Your task to perform on an android device: change the upload size in google photos Image 0: 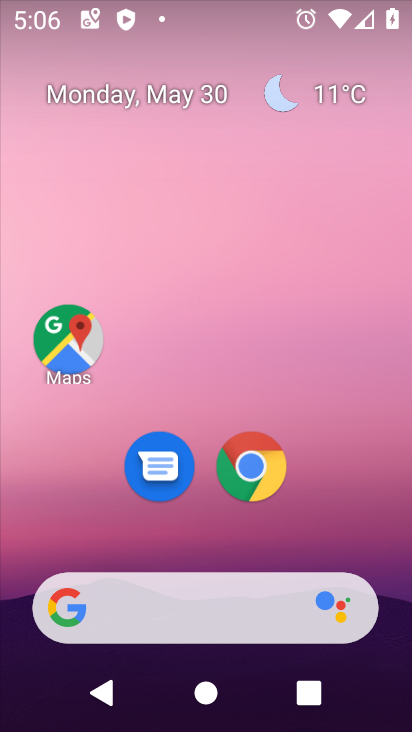
Step 0: drag from (375, 497) to (291, 67)
Your task to perform on an android device: change the upload size in google photos Image 1: 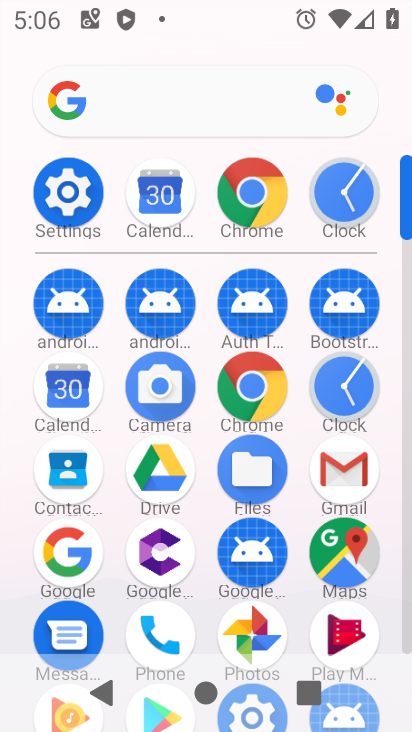
Step 1: click (242, 637)
Your task to perform on an android device: change the upload size in google photos Image 2: 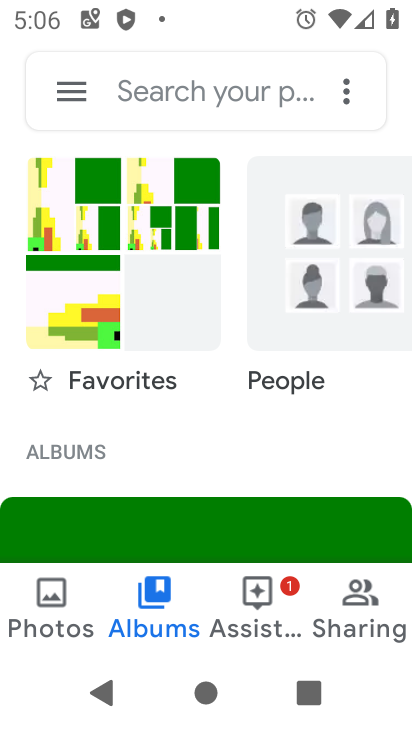
Step 2: click (76, 68)
Your task to perform on an android device: change the upload size in google photos Image 3: 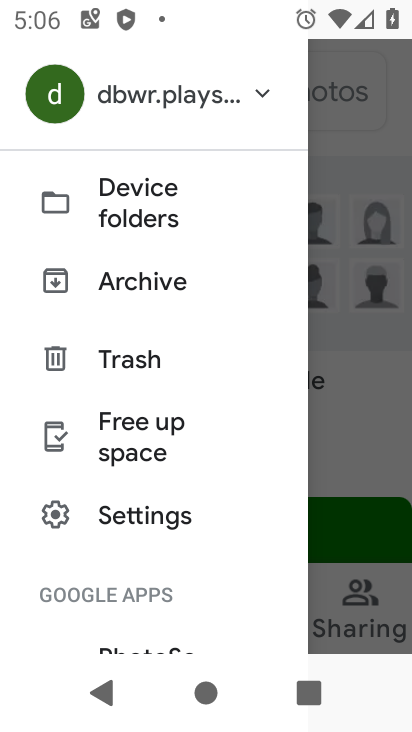
Step 3: drag from (209, 615) to (230, 177)
Your task to perform on an android device: change the upload size in google photos Image 4: 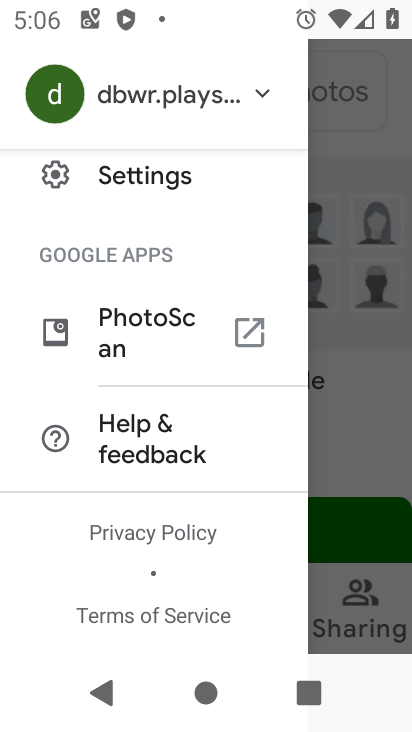
Step 4: click (110, 179)
Your task to perform on an android device: change the upload size in google photos Image 5: 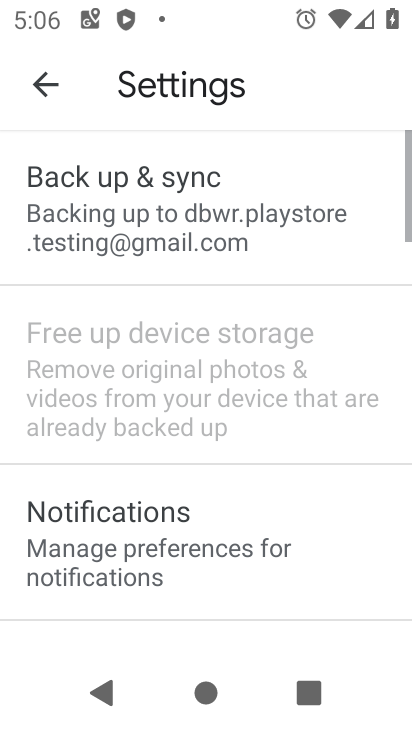
Step 5: drag from (226, 155) to (314, 639)
Your task to perform on an android device: change the upload size in google photos Image 6: 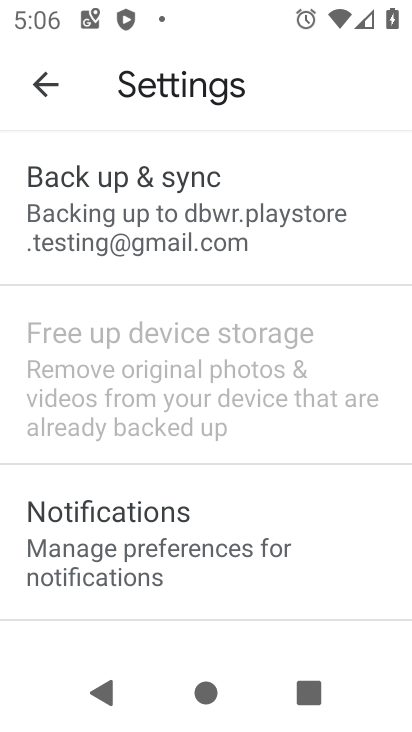
Step 6: click (273, 231)
Your task to perform on an android device: change the upload size in google photos Image 7: 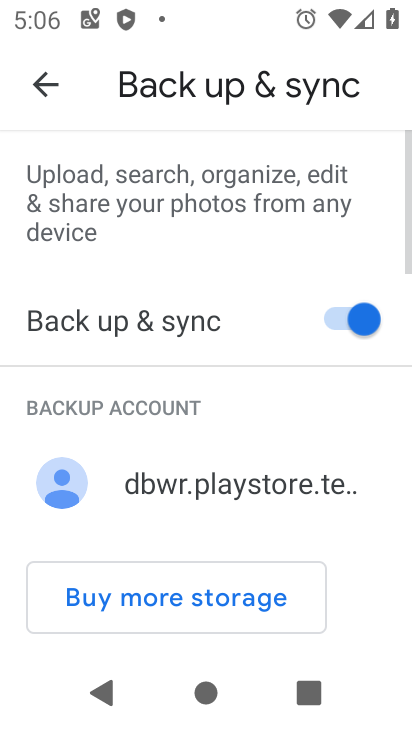
Step 7: drag from (211, 577) to (236, 190)
Your task to perform on an android device: change the upload size in google photos Image 8: 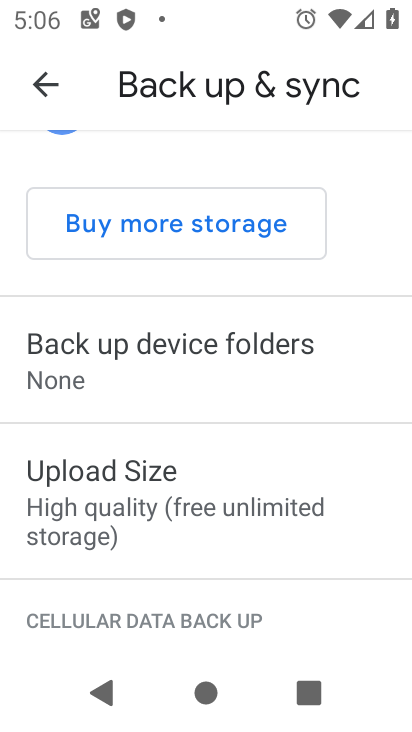
Step 8: click (180, 491)
Your task to perform on an android device: change the upload size in google photos Image 9: 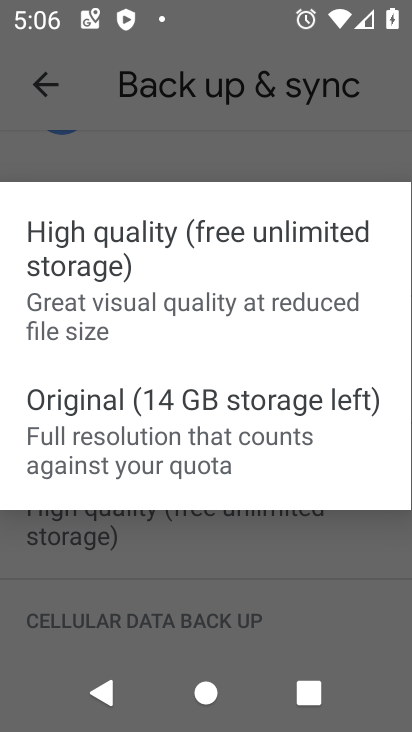
Step 9: click (187, 457)
Your task to perform on an android device: change the upload size in google photos Image 10: 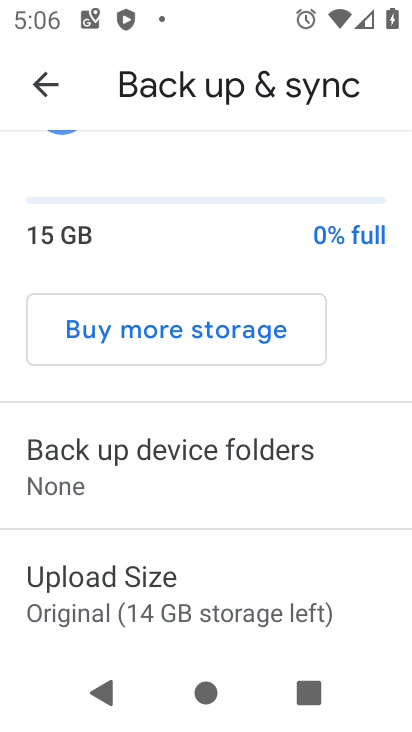
Step 10: task complete